Your task to perform on an android device: Open accessibility settings Image 0: 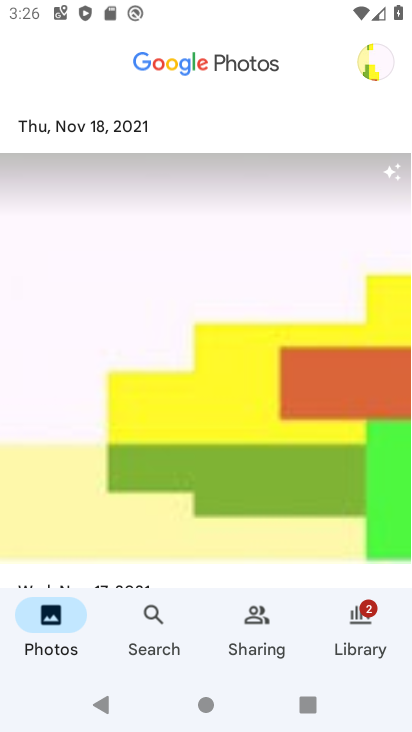
Step 0: drag from (255, 615) to (301, 207)
Your task to perform on an android device: Open accessibility settings Image 1: 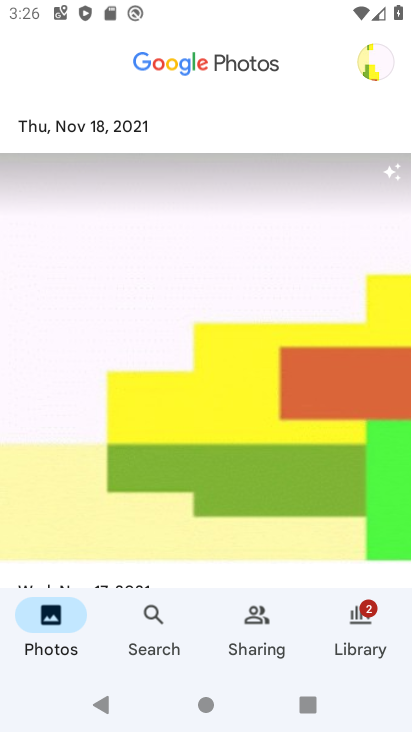
Step 1: press home button
Your task to perform on an android device: Open accessibility settings Image 2: 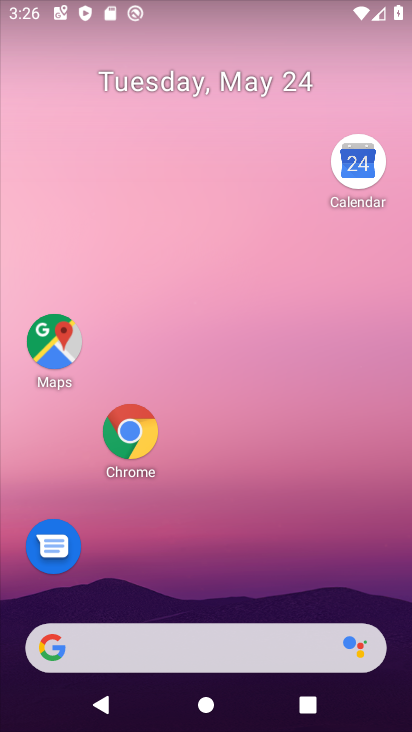
Step 2: drag from (169, 574) to (238, 8)
Your task to perform on an android device: Open accessibility settings Image 3: 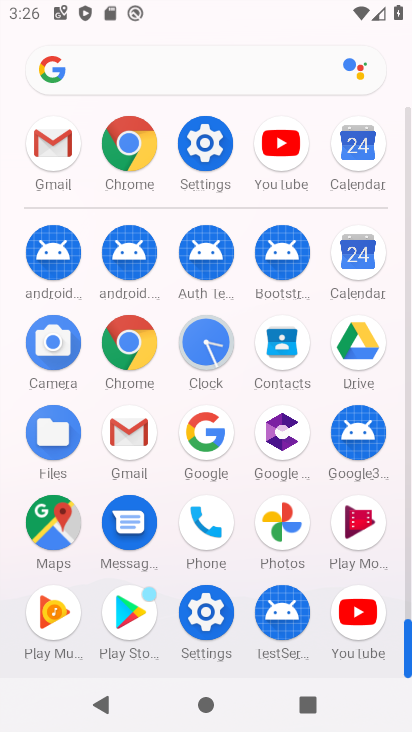
Step 3: click (178, 127)
Your task to perform on an android device: Open accessibility settings Image 4: 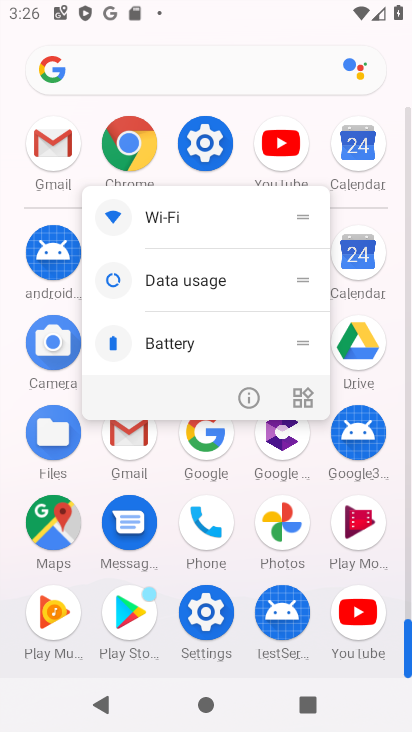
Step 4: click (256, 403)
Your task to perform on an android device: Open accessibility settings Image 5: 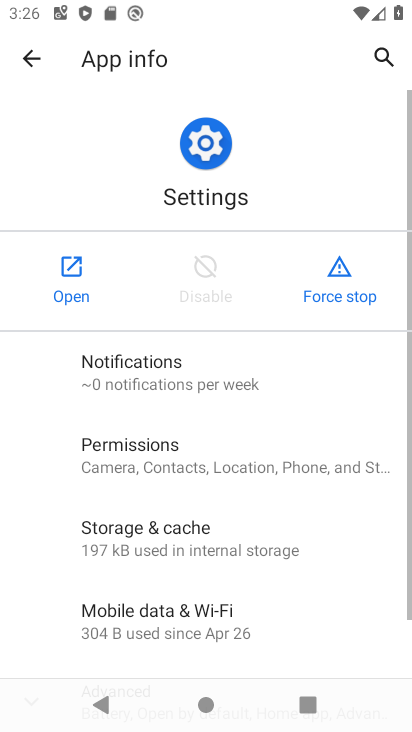
Step 5: click (72, 269)
Your task to perform on an android device: Open accessibility settings Image 6: 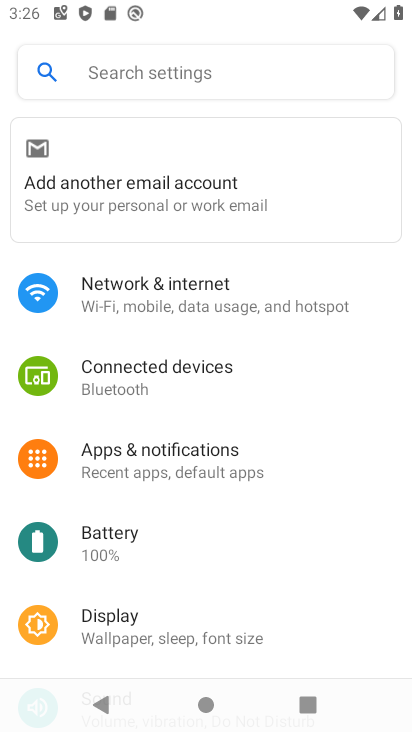
Step 6: drag from (224, 508) to (359, 129)
Your task to perform on an android device: Open accessibility settings Image 7: 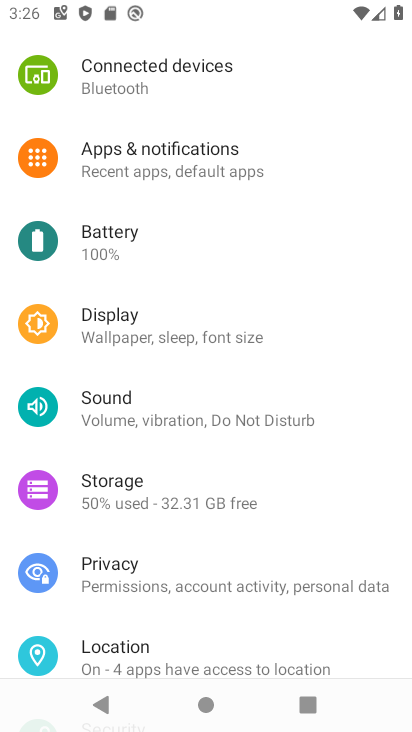
Step 7: click (182, 168)
Your task to perform on an android device: Open accessibility settings Image 8: 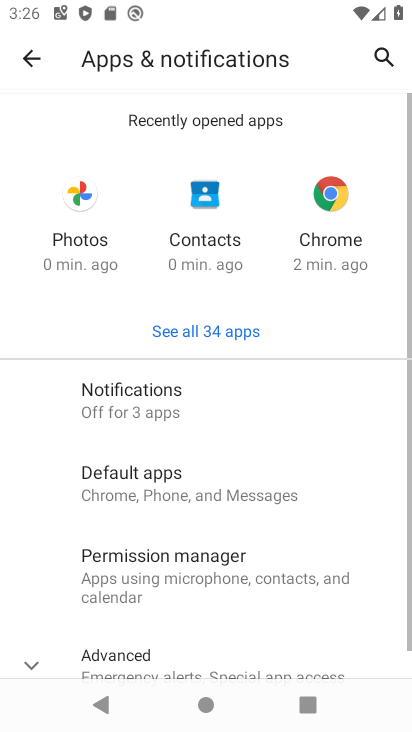
Step 8: click (44, 71)
Your task to perform on an android device: Open accessibility settings Image 9: 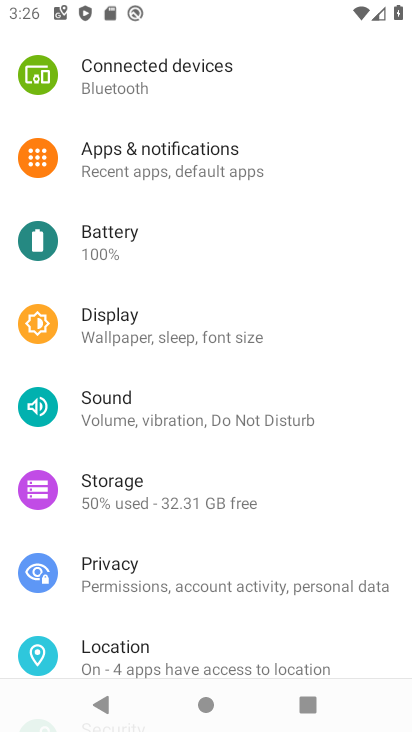
Step 9: drag from (186, 616) to (299, 84)
Your task to perform on an android device: Open accessibility settings Image 10: 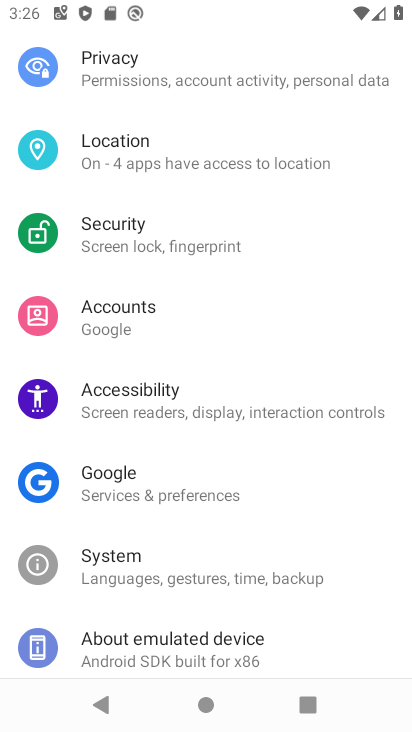
Step 10: click (130, 395)
Your task to perform on an android device: Open accessibility settings Image 11: 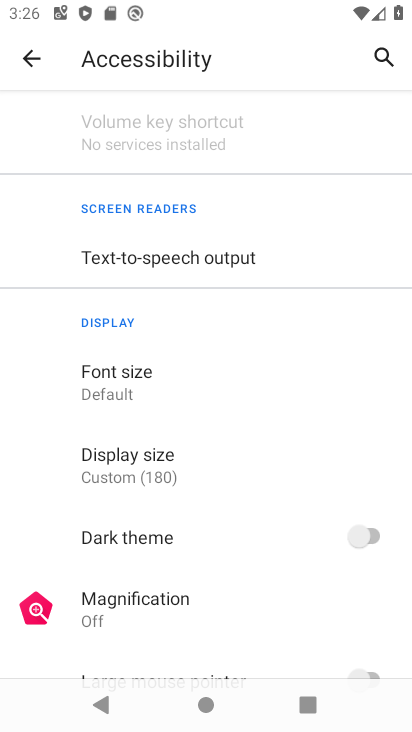
Step 11: task complete